Your task to perform on an android device: Show the shopping cart on costco. Add logitech g pro to the cart on costco, then select checkout. Image 0: 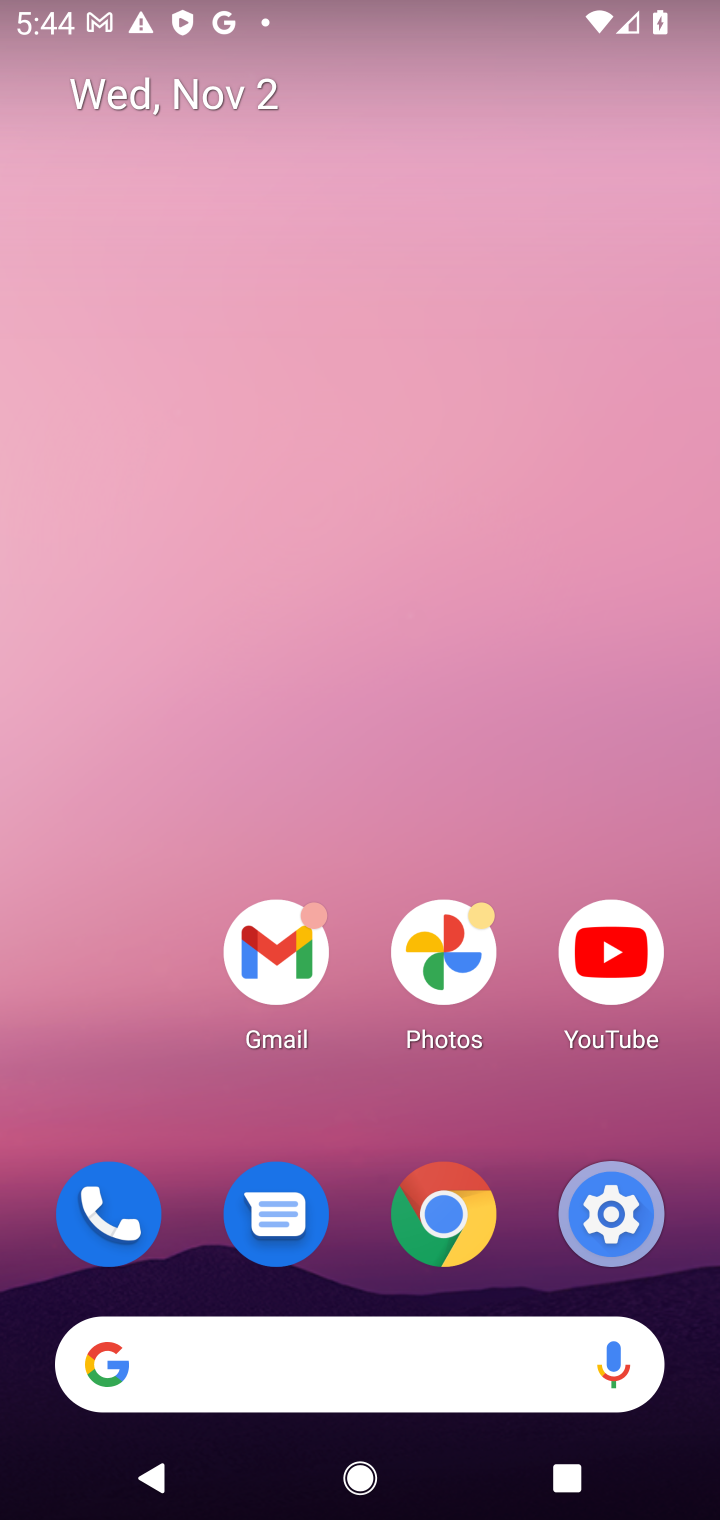
Step 0: click (446, 1216)
Your task to perform on an android device: Show the shopping cart on costco. Add logitech g pro to the cart on costco, then select checkout. Image 1: 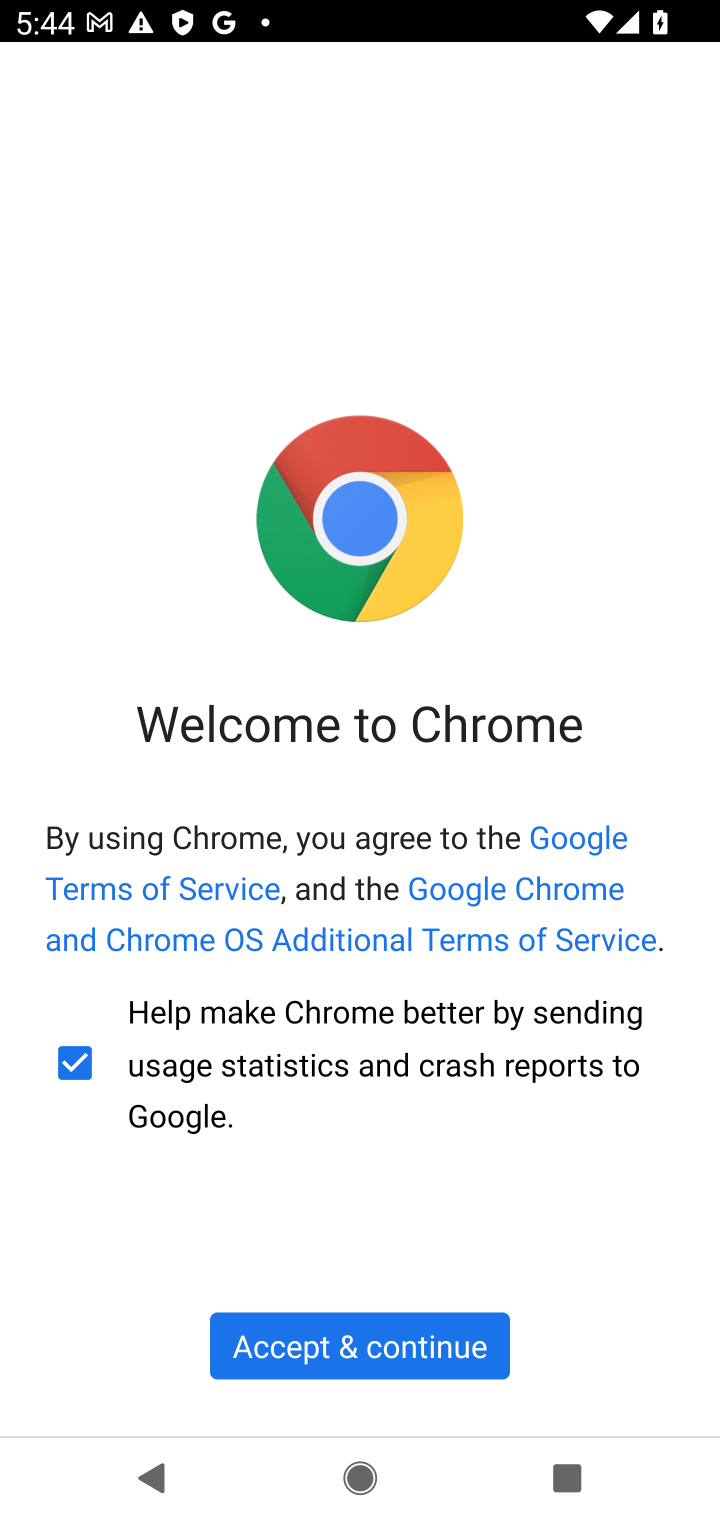
Step 1: click (353, 1340)
Your task to perform on an android device: Show the shopping cart on costco. Add logitech g pro to the cart on costco, then select checkout. Image 2: 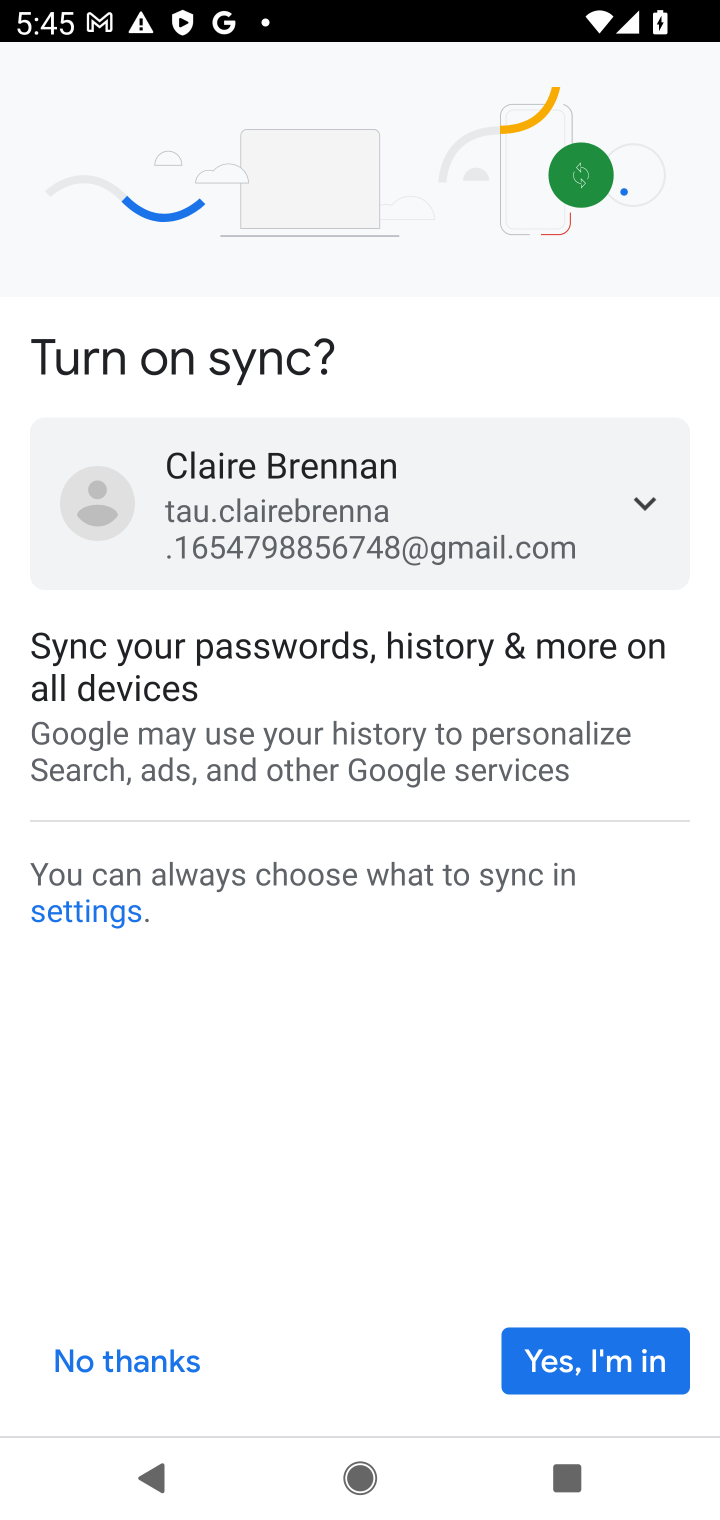
Step 2: click (603, 1361)
Your task to perform on an android device: Show the shopping cart on costco. Add logitech g pro to the cart on costco, then select checkout. Image 3: 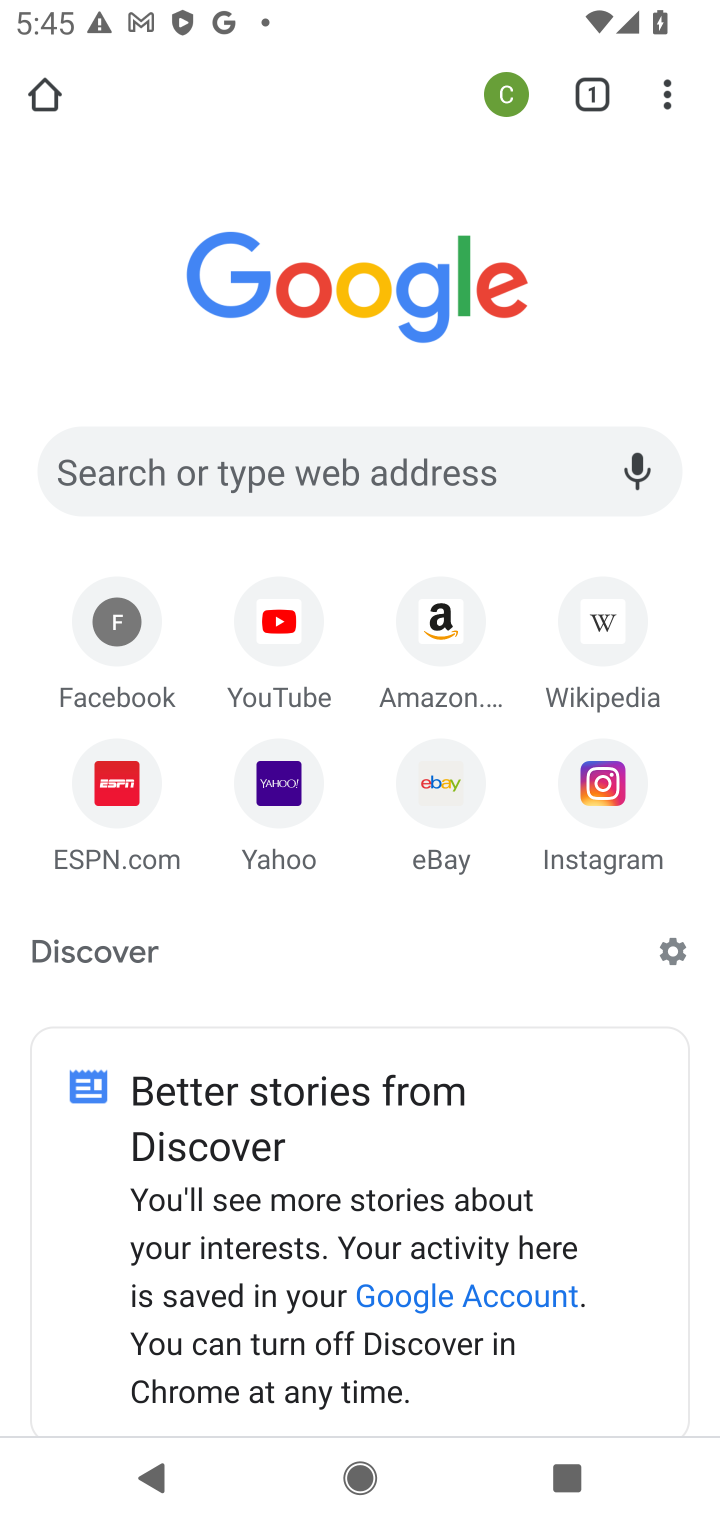
Step 3: click (297, 458)
Your task to perform on an android device: Show the shopping cart on costco. Add logitech g pro to the cart on costco, then select checkout. Image 4: 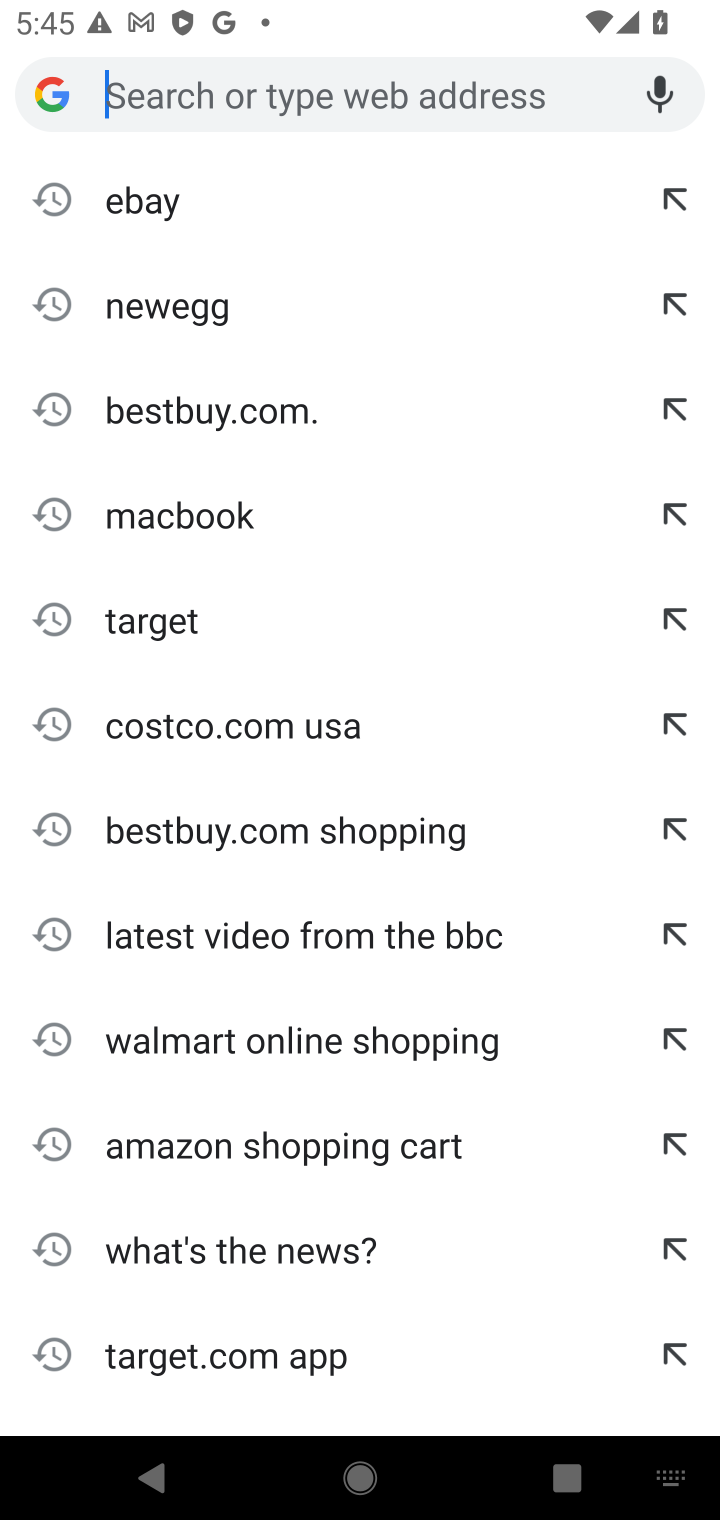
Step 4: type "costco"
Your task to perform on an android device: Show the shopping cart on costco. Add logitech g pro to the cart on costco, then select checkout. Image 5: 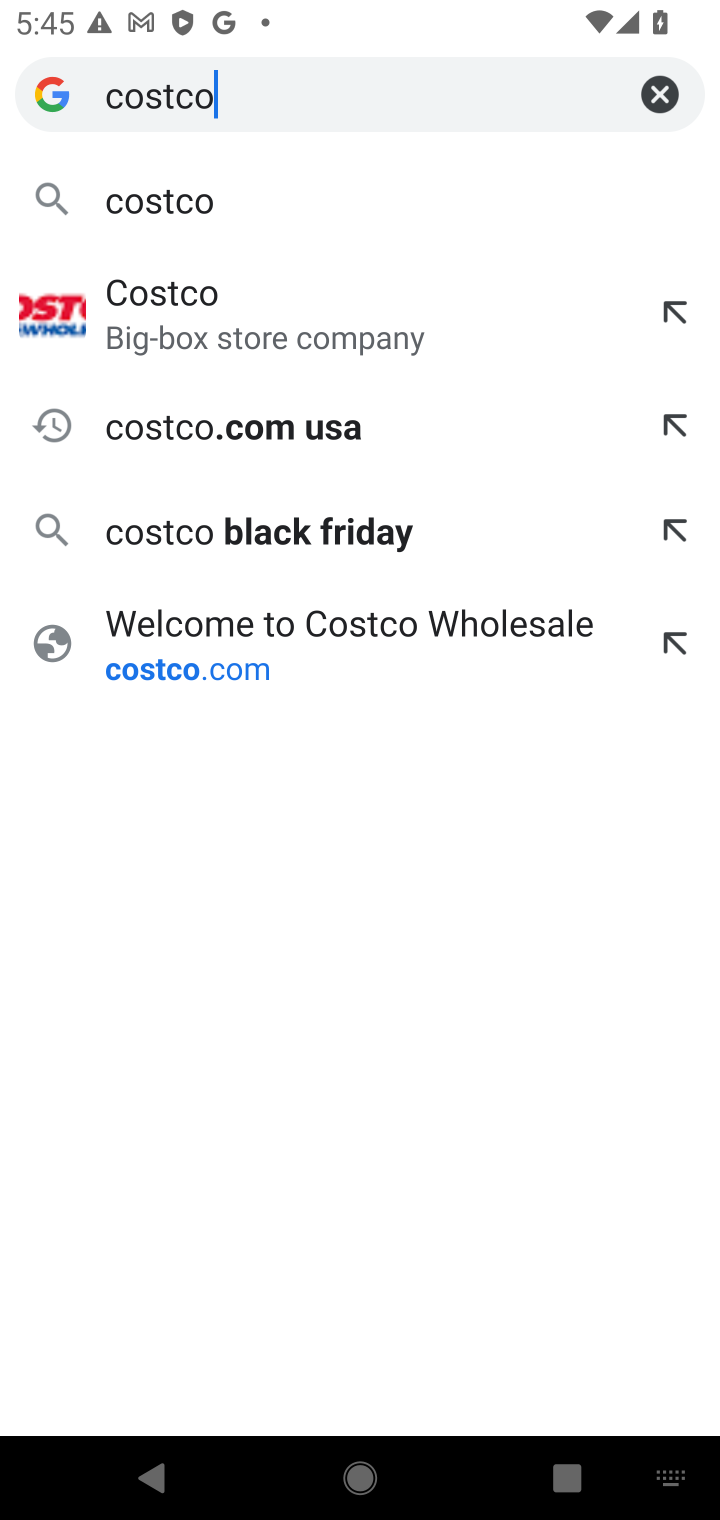
Step 5: click (173, 214)
Your task to perform on an android device: Show the shopping cart on costco. Add logitech g pro to the cart on costco, then select checkout. Image 6: 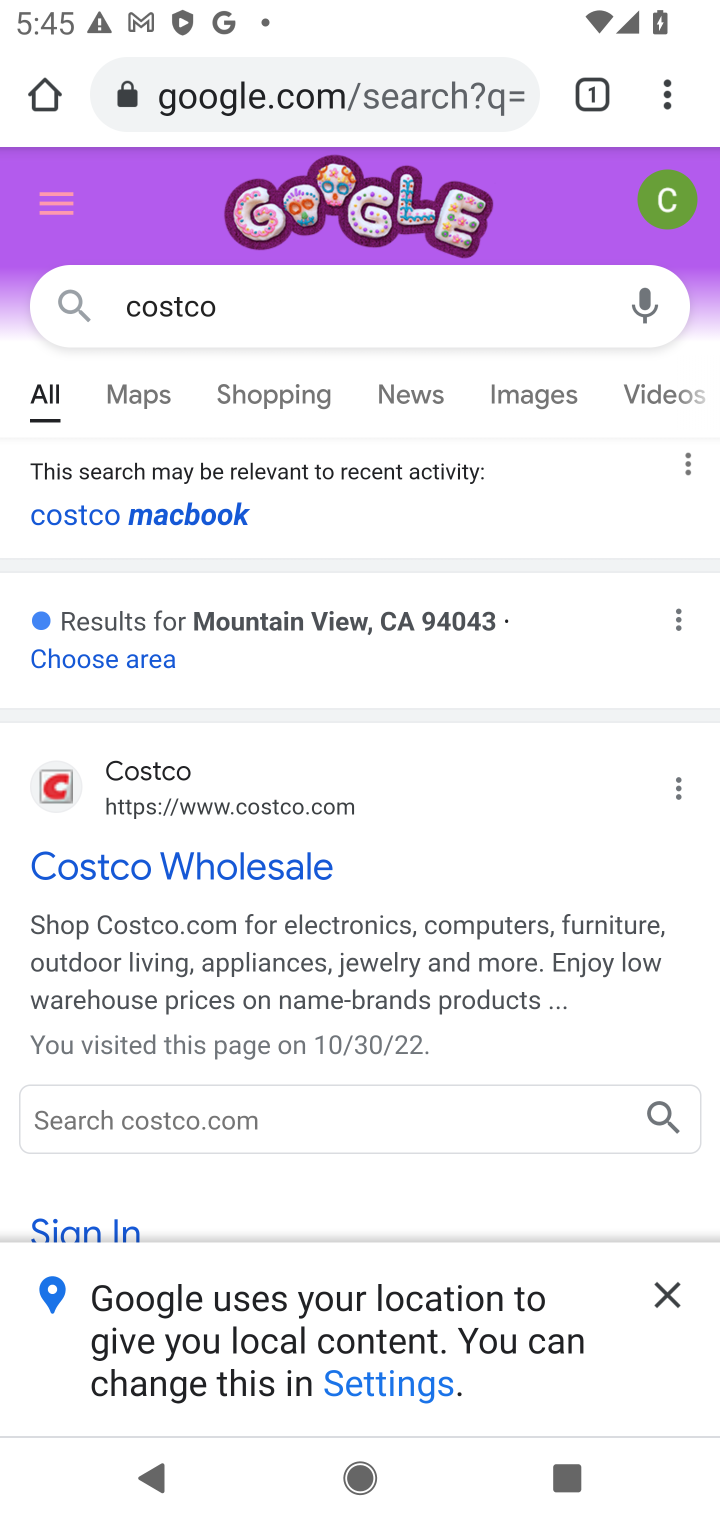
Step 6: click (173, 859)
Your task to perform on an android device: Show the shopping cart on costco. Add logitech g pro to the cart on costco, then select checkout. Image 7: 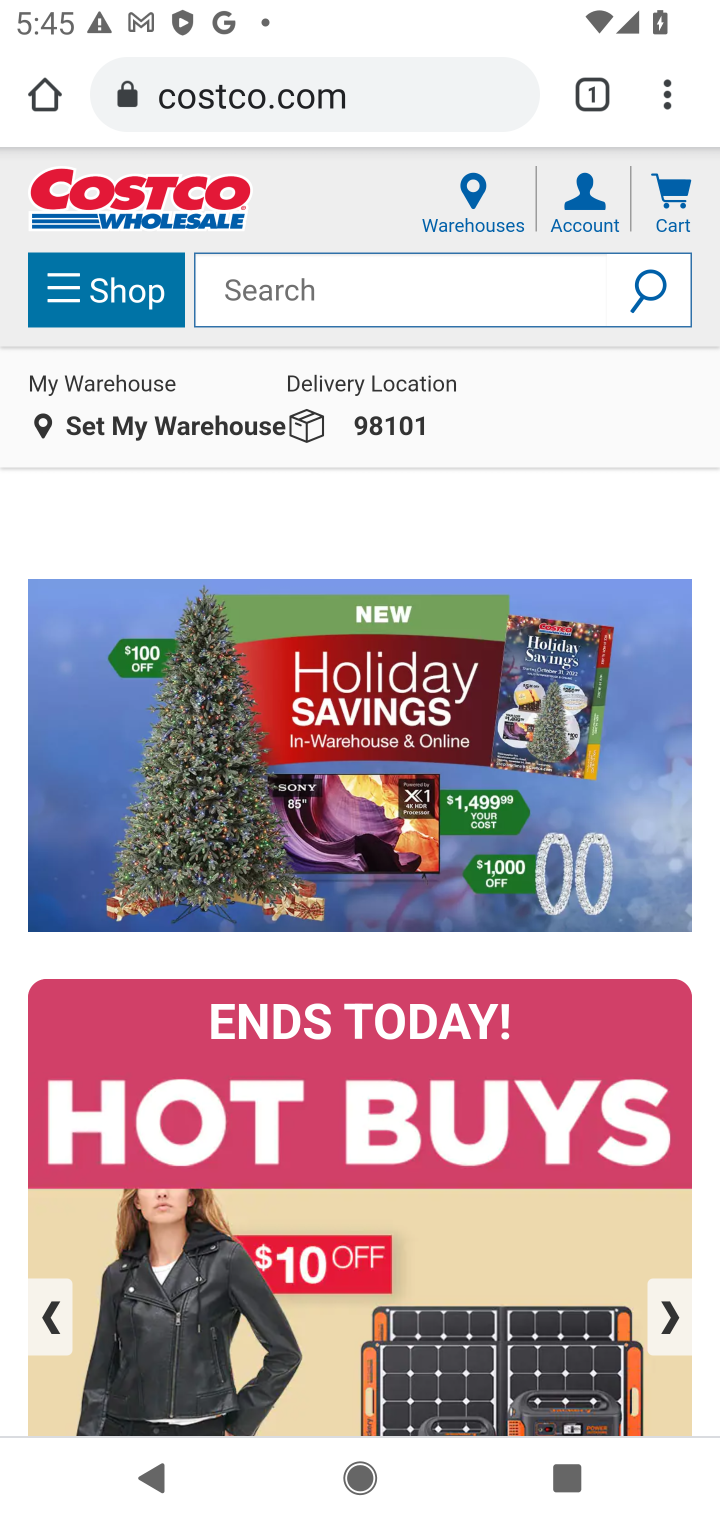
Step 7: click (679, 197)
Your task to perform on an android device: Show the shopping cart on costco. Add logitech g pro to the cart on costco, then select checkout. Image 8: 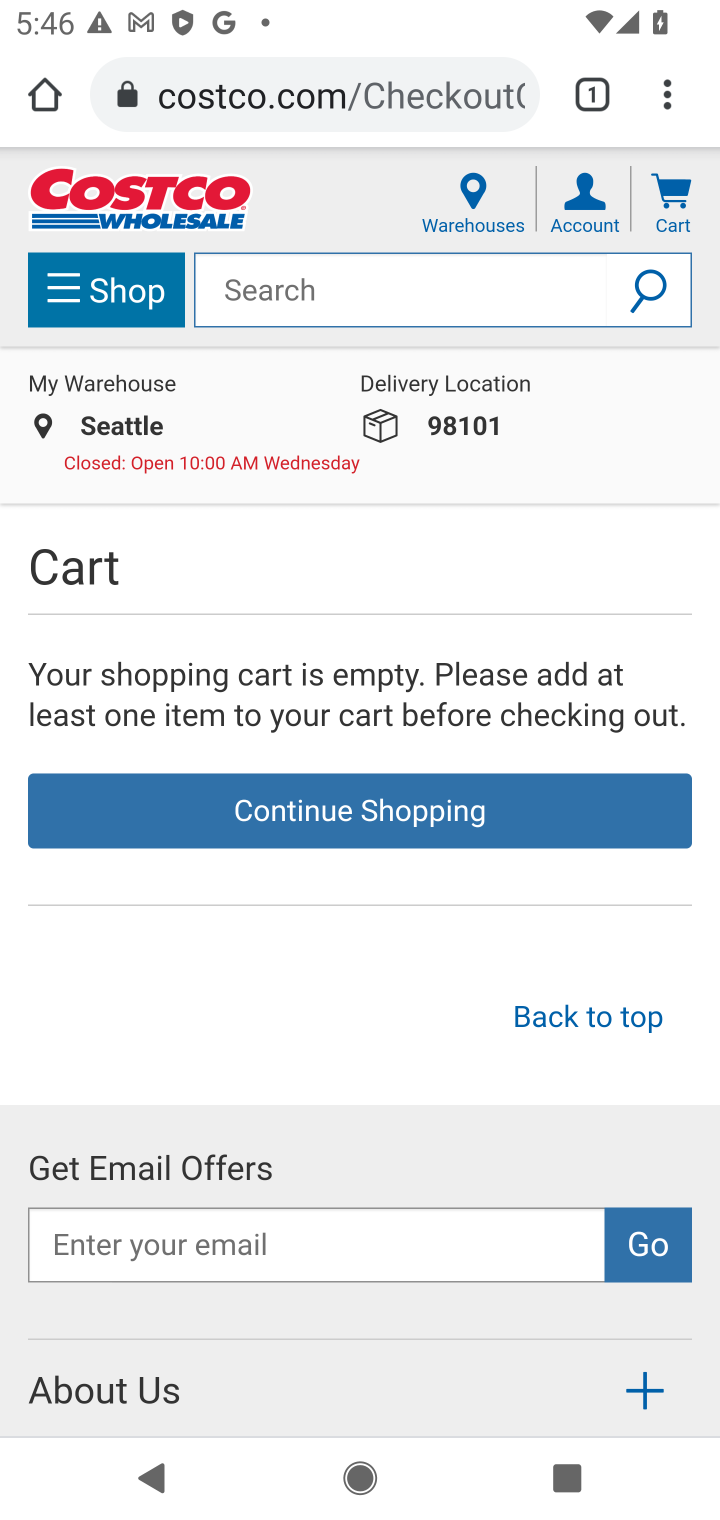
Step 8: click (354, 277)
Your task to perform on an android device: Show the shopping cart on costco. Add logitech g pro to the cart on costco, then select checkout. Image 9: 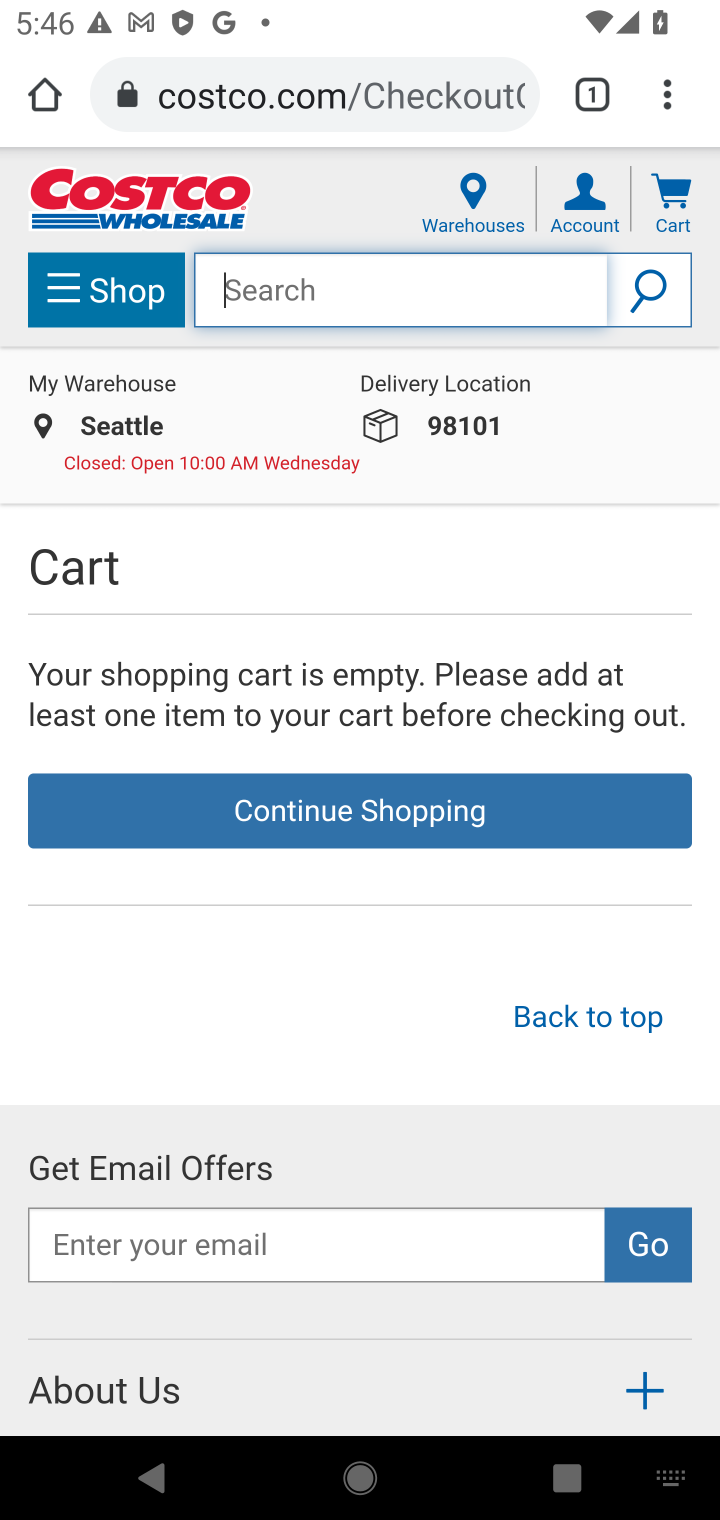
Step 9: type "logitech g pro"
Your task to perform on an android device: Show the shopping cart on costco. Add logitech g pro to the cart on costco, then select checkout. Image 10: 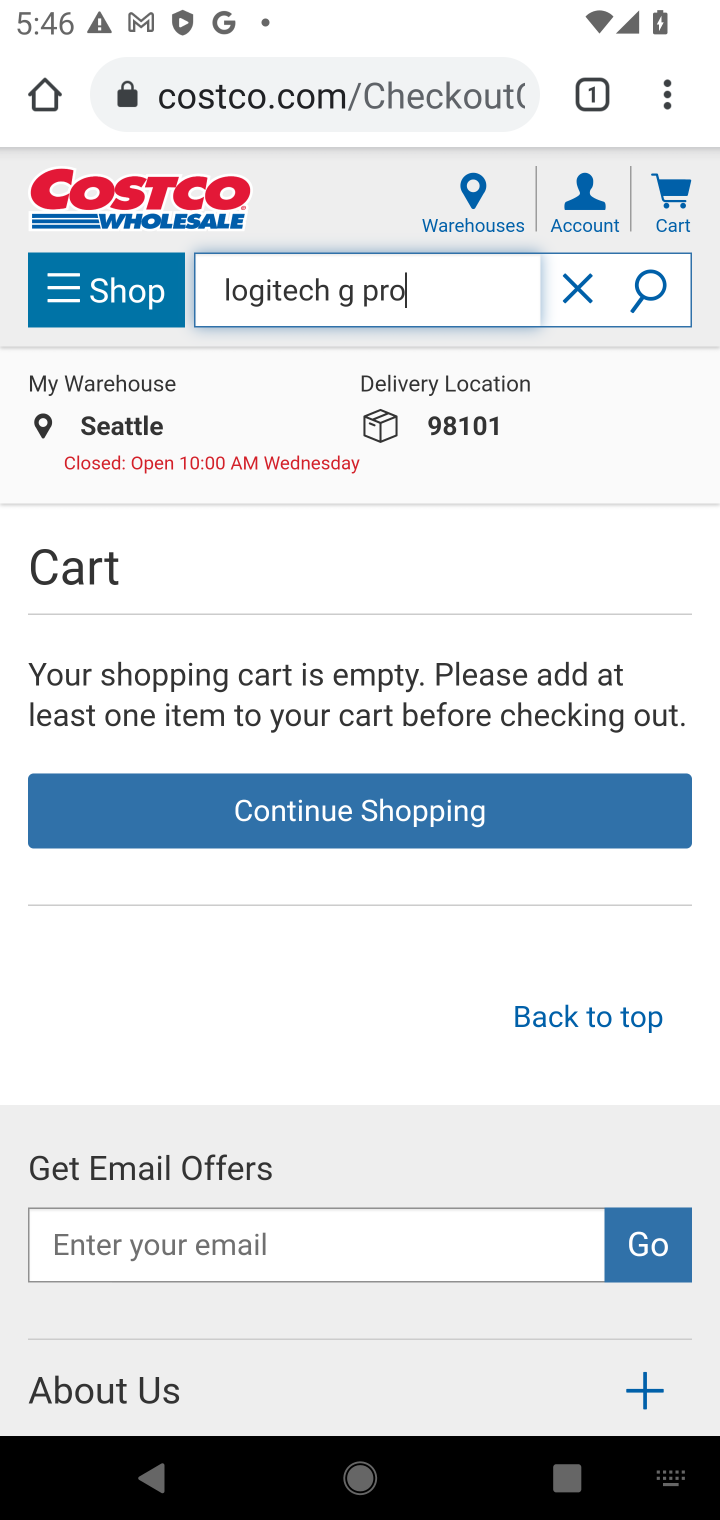
Step 10: click (646, 291)
Your task to perform on an android device: Show the shopping cart on costco. Add logitech g pro to the cart on costco, then select checkout. Image 11: 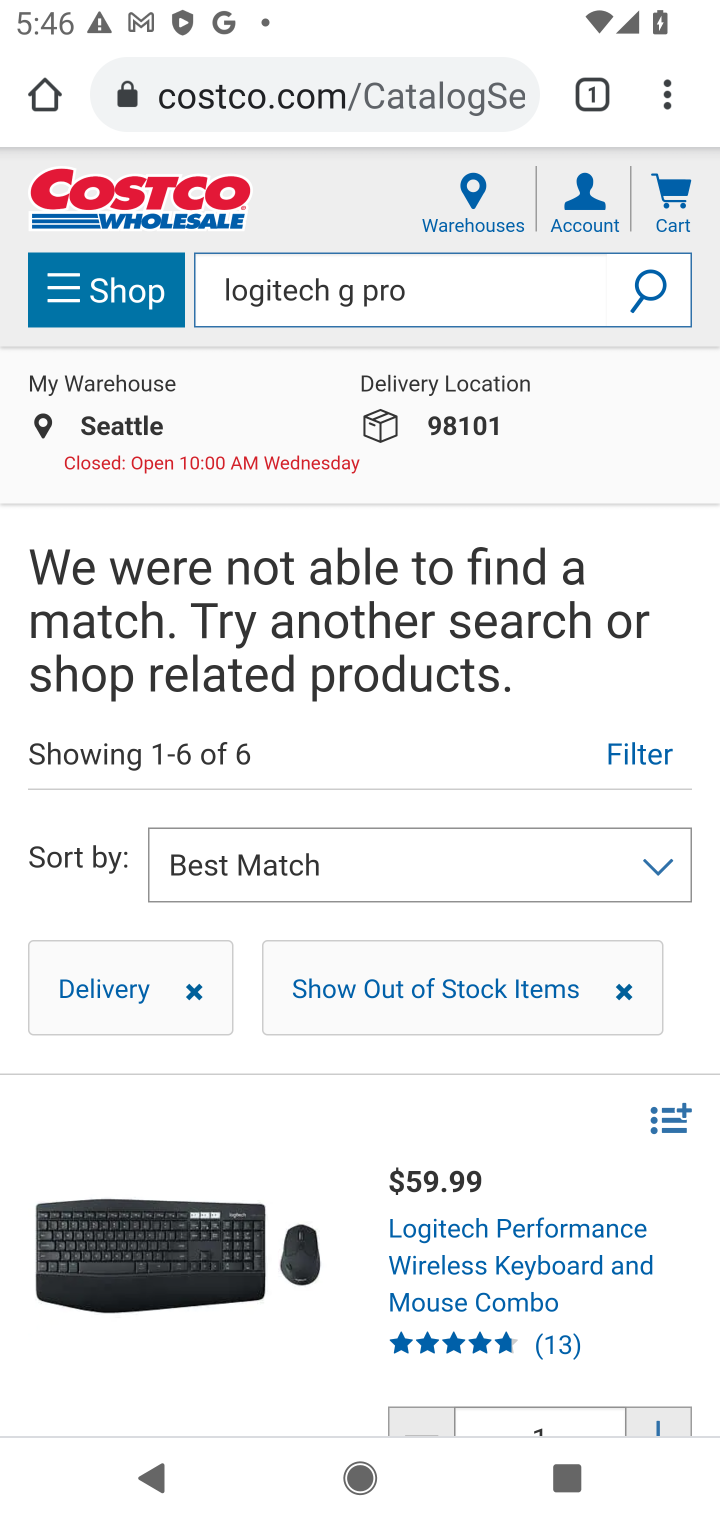
Step 11: task complete